Your task to perform on an android device: Open Chrome and go to the settings page Image 0: 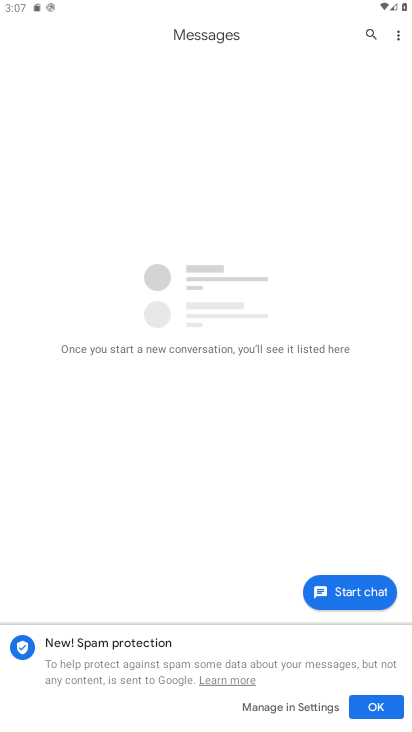
Step 0: drag from (181, 274) to (181, 211)
Your task to perform on an android device: Open Chrome and go to the settings page Image 1: 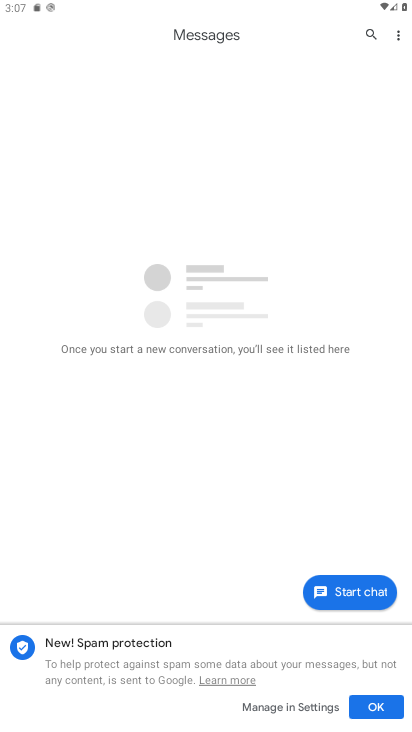
Step 1: press home button
Your task to perform on an android device: Open Chrome and go to the settings page Image 2: 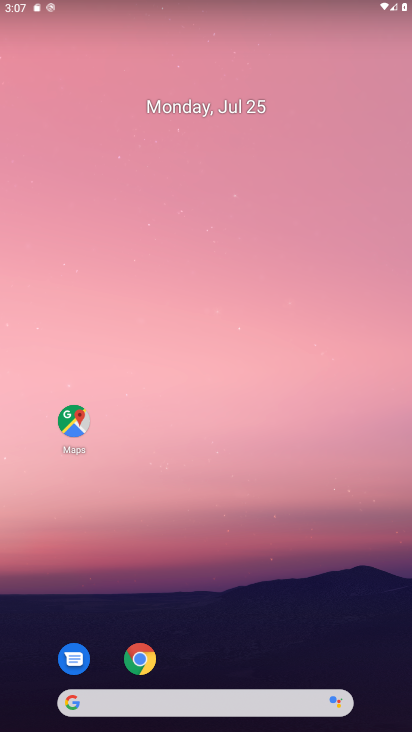
Step 2: click (137, 659)
Your task to perform on an android device: Open Chrome and go to the settings page Image 3: 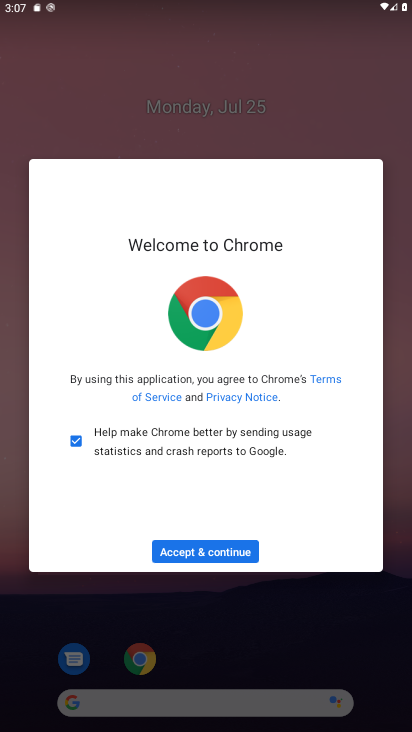
Step 3: click (197, 556)
Your task to perform on an android device: Open Chrome and go to the settings page Image 4: 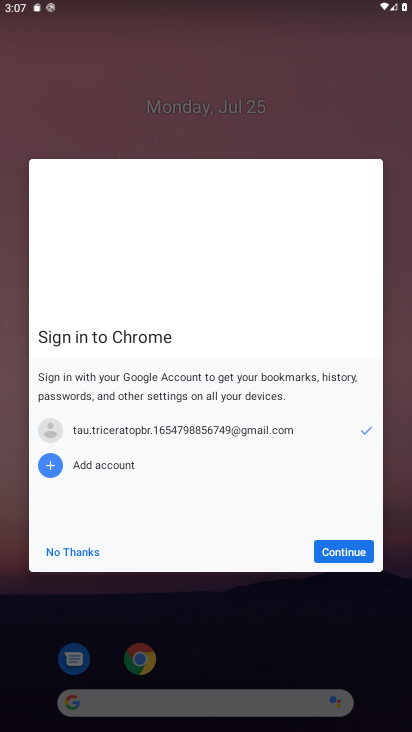
Step 4: click (197, 556)
Your task to perform on an android device: Open Chrome and go to the settings page Image 5: 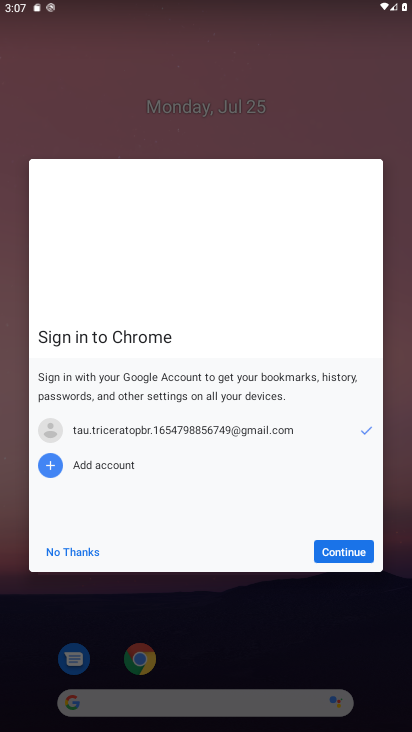
Step 5: click (340, 549)
Your task to perform on an android device: Open Chrome and go to the settings page Image 6: 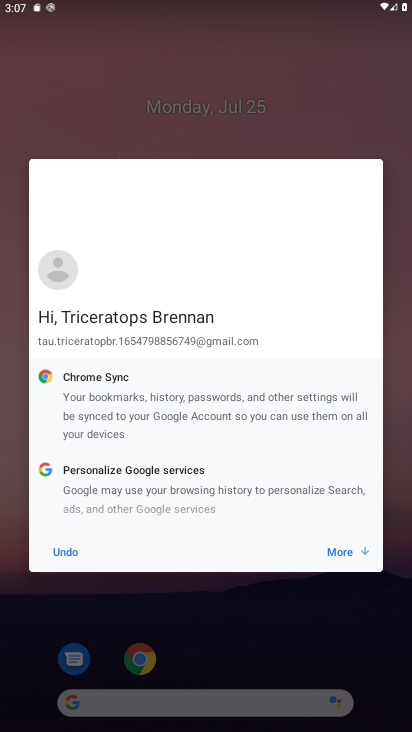
Step 6: click (343, 549)
Your task to perform on an android device: Open Chrome and go to the settings page Image 7: 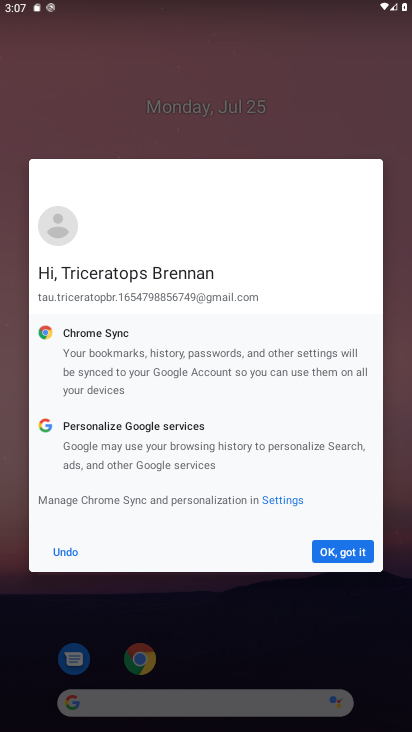
Step 7: click (343, 549)
Your task to perform on an android device: Open Chrome and go to the settings page Image 8: 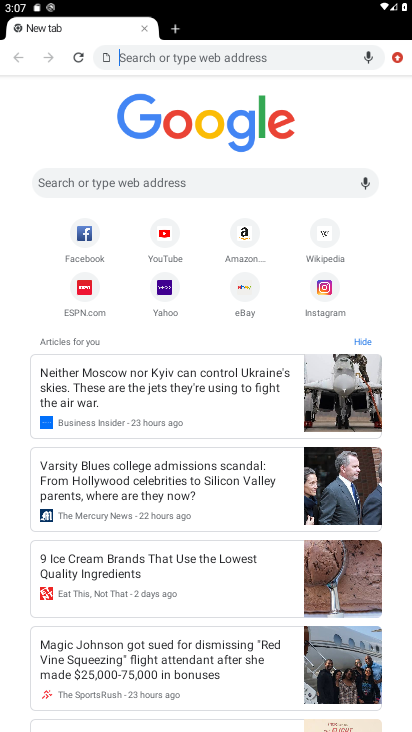
Step 8: click (394, 56)
Your task to perform on an android device: Open Chrome and go to the settings page Image 9: 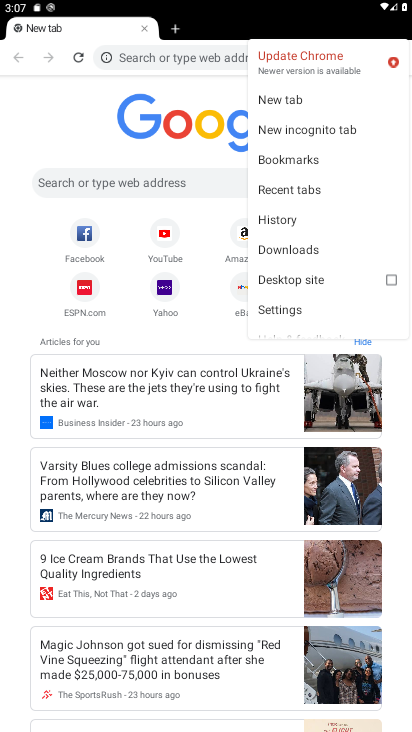
Step 9: click (267, 304)
Your task to perform on an android device: Open Chrome and go to the settings page Image 10: 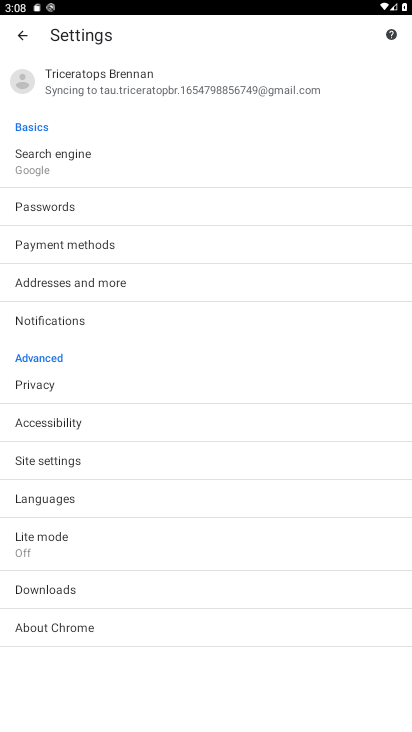
Step 10: task complete